Your task to perform on an android device: change notification settings in the gmail app Image 0: 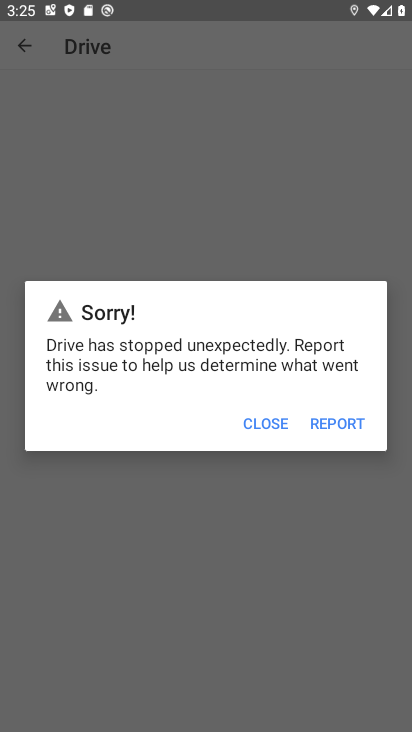
Step 0: press home button
Your task to perform on an android device: change notification settings in the gmail app Image 1: 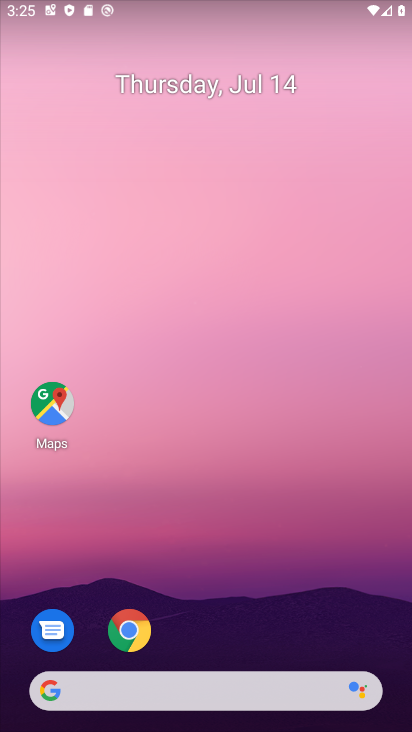
Step 1: drag from (301, 607) to (216, 0)
Your task to perform on an android device: change notification settings in the gmail app Image 2: 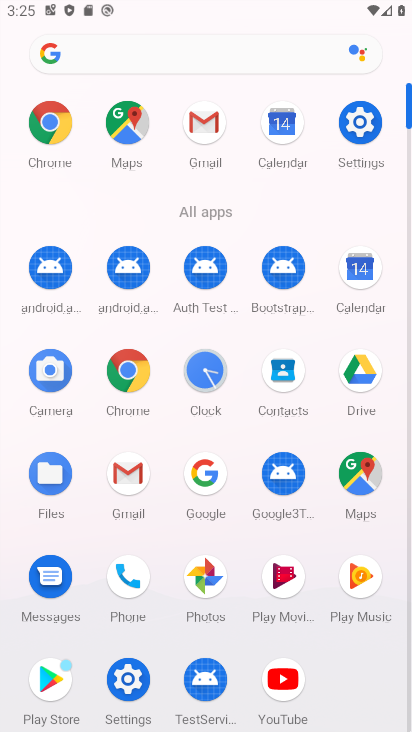
Step 2: click (210, 125)
Your task to perform on an android device: change notification settings in the gmail app Image 3: 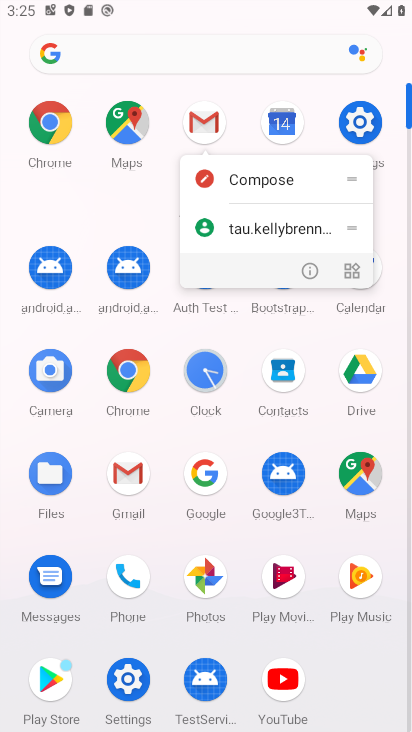
Step 3: click (309, 274)
Your task to perform on an android device: change notification settings in the gmail app Image 4: 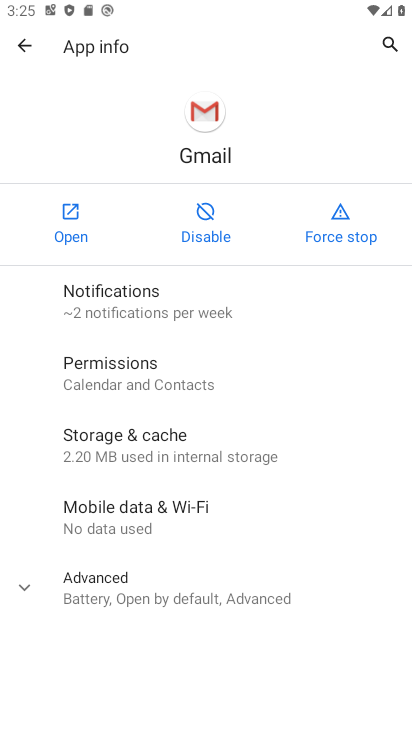
Step 4: click (236, 300)
Your task to perform on an android device: change notification settings in the gmail app Image 5: 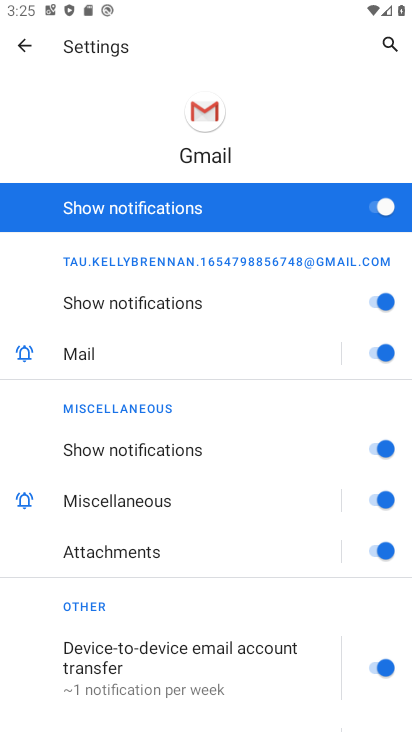
Step 5: click (376, 351)
Your task to perform on an android device: change notification settings in the gmail app Image 6: 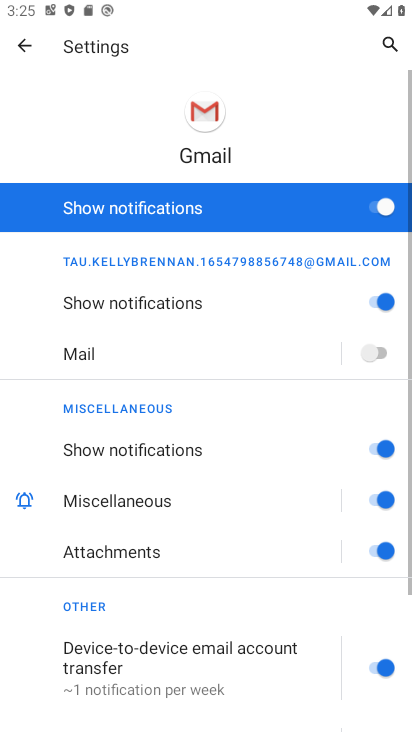
Step 6: click (387, 443)
Your task to perform on an android device: change notification settings in the gmail app Image 7: 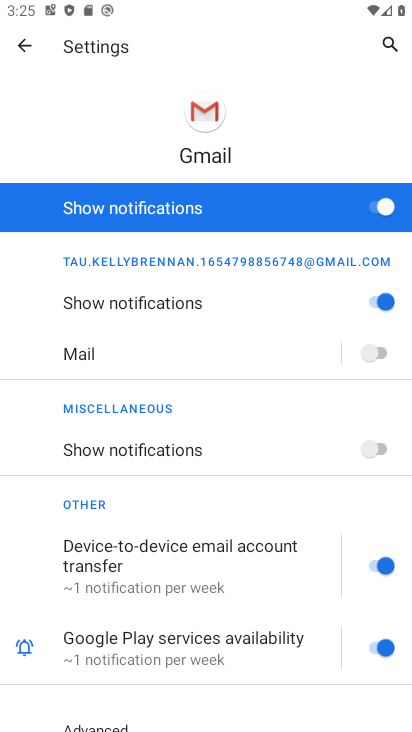
Step 7: click (388, 641)
Your task to perform on an android device: change notification settings in the gmail app Image 8: 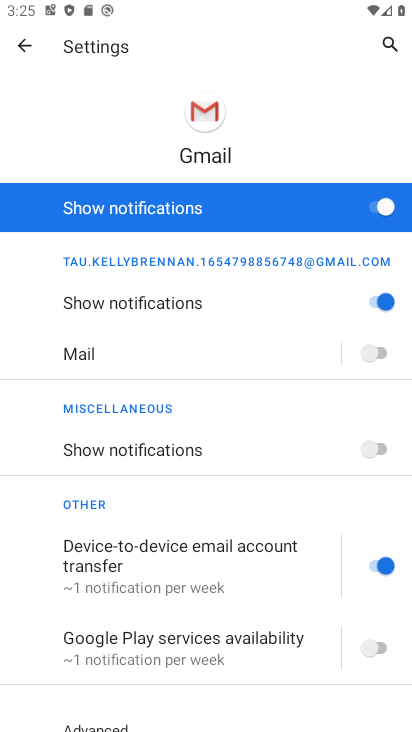
Step 8: task complete